Your task to perform on an android device: Go to display settings Image 0: 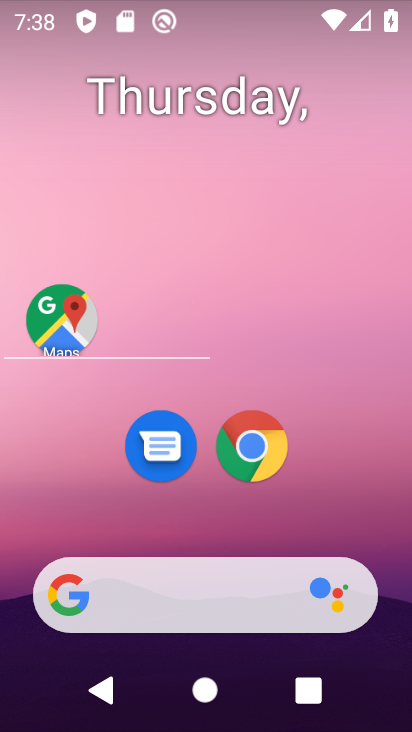
Step 0: click (280, 78)
Your task to perform on an android device: Go to display settings Image 1: 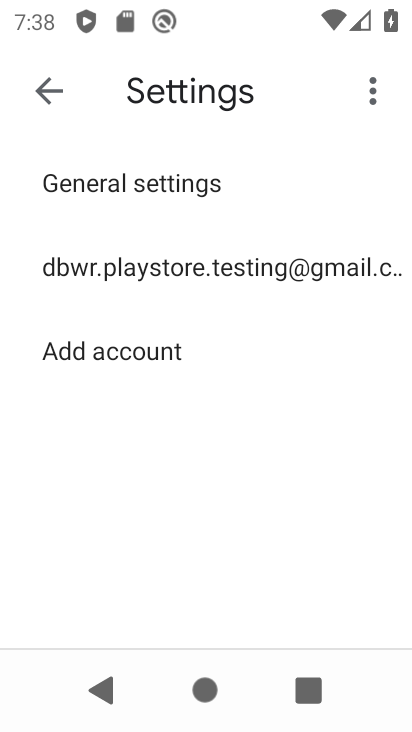
Step 1: press back button
Your task to perform on an android device: Go to display settings Image 2: 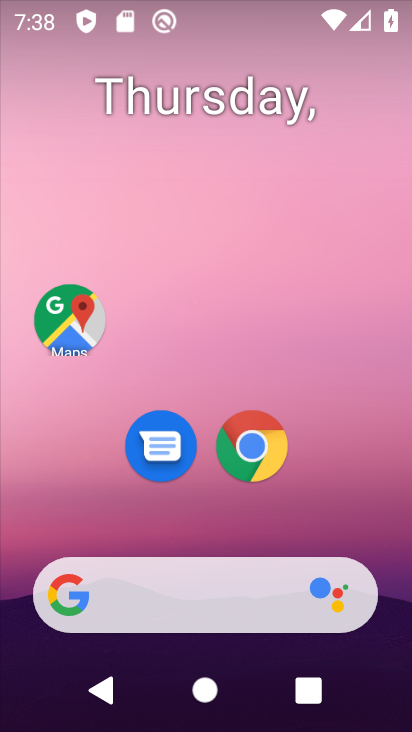
Step 2: drag from (340, 591) to (274, 50)
Your task to perform on an android device: Go to display settings Image 3: 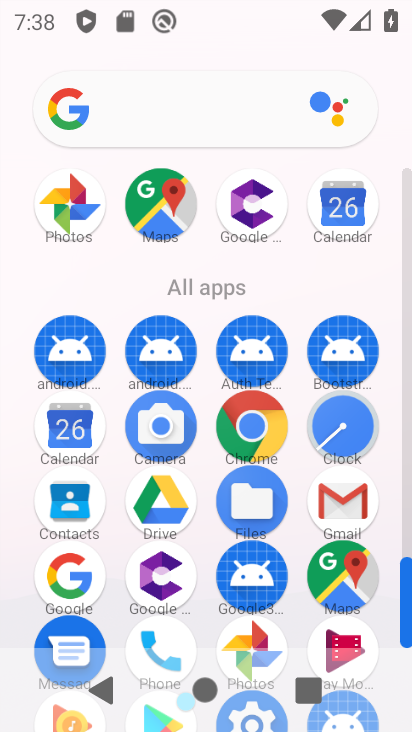
Step 3: drag from (264, 565) to (252, 64)
Your task to perform on an android device: Go to display settings Image 4: 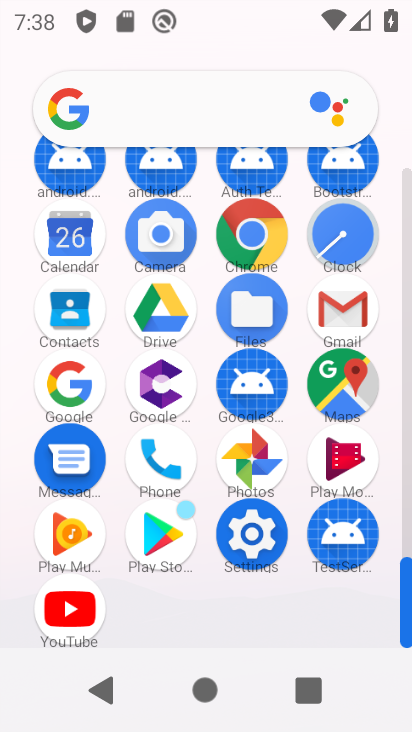
Step 4: click (269, 519)
Your task to perform on an android device: Go to display settings Image 5: 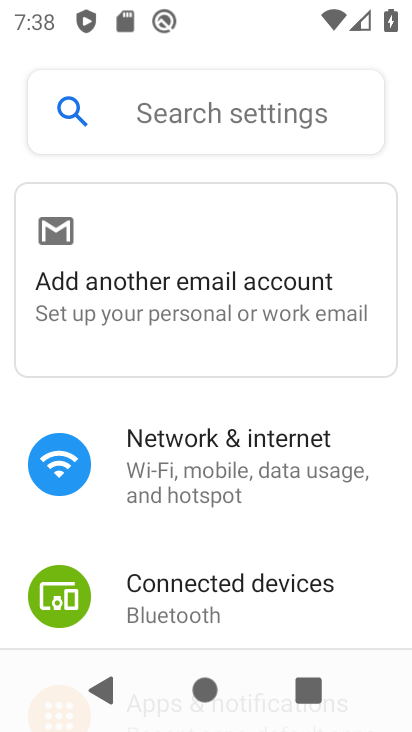
Step 5: drag from (320, 521) to (315, 145)
Your task to perform on an android device: Go to display settings Image 6: 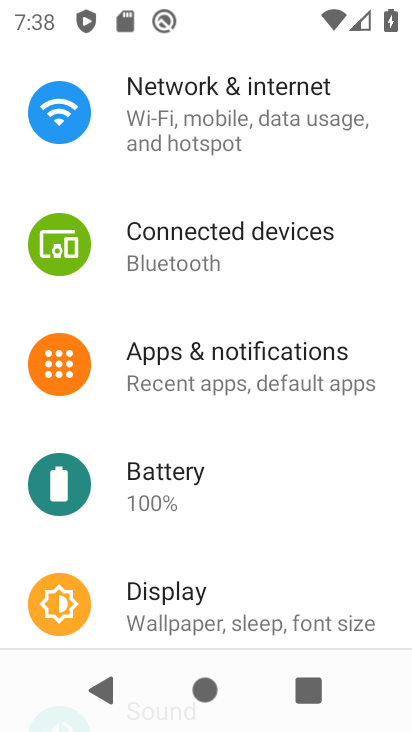
Step 6: click (278, 605)
Your task to perform on an android device: Go to display settings Image 7: 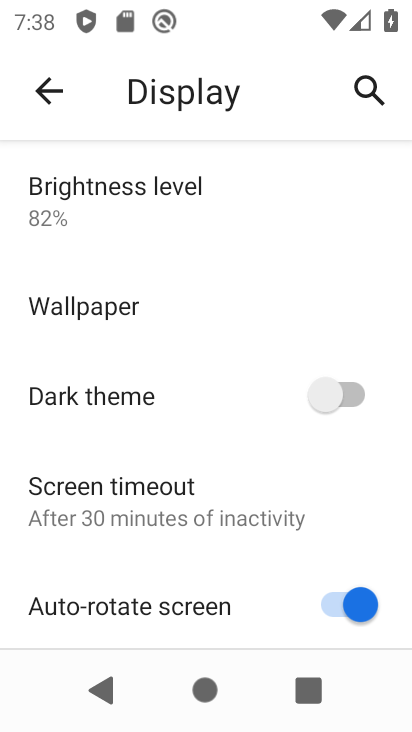
Step 7: task complete